Your task to perform on an android device: search for starred emails in the gmail app Image 0: 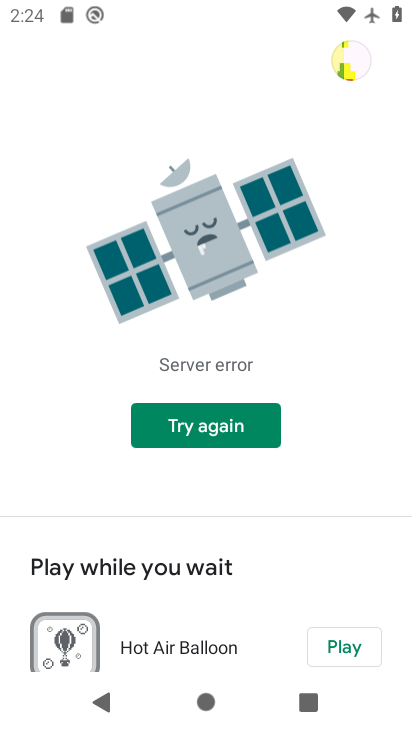
Step 0: press home button
Your task to perform on an android device: search for starred emails in the gmail app Image 1: 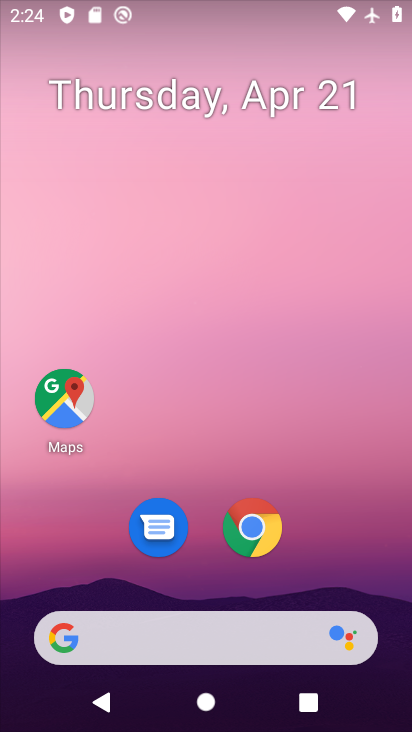
Step 1: drag from (336, 566) to (241, 22)
Your task to perform on an android device: search for starred emails in the gmail app Image 2: 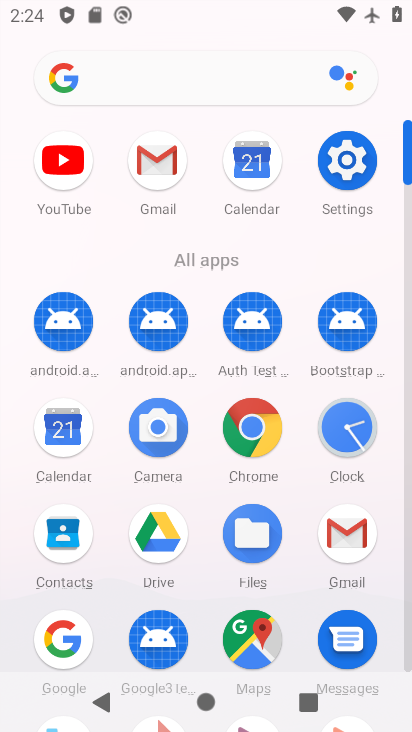
Step 2: click (146, 195)
Your task to perform on an android device: search for starred emails in the gmail app Image 3: 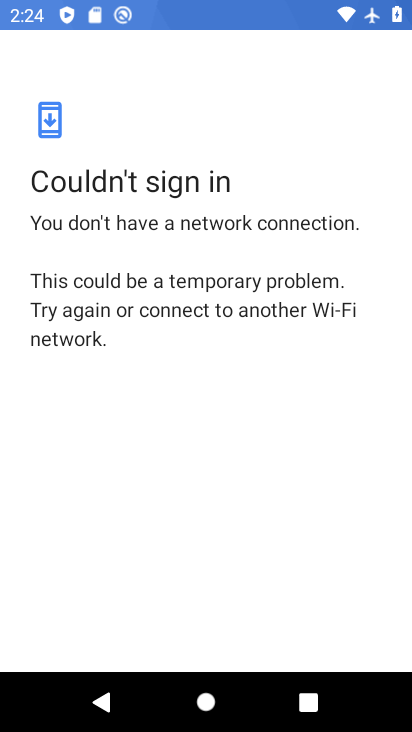
Step 3: task complete